Your task to perform on an android device: Open location settings Image 0: 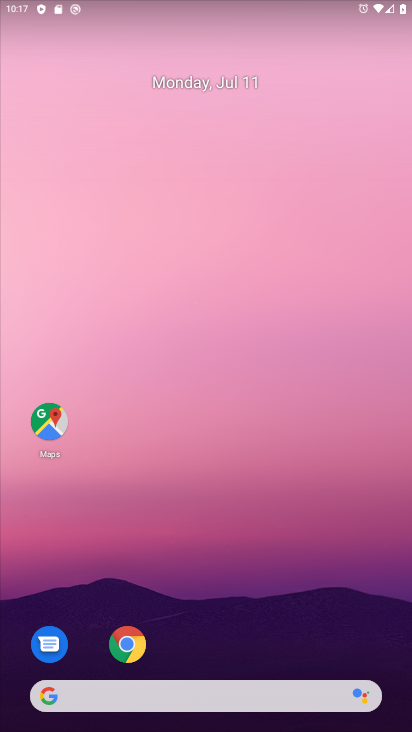
Step 0: press home button
Your task to perform on an android device: Open location settings Image 1: 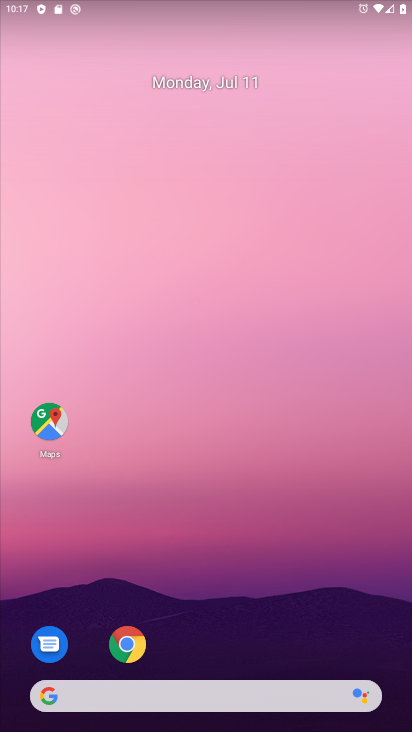
Step 1: drag from (249, 587) to (242, 220)
Your task to perform on an android device: Open location settings Image 2: 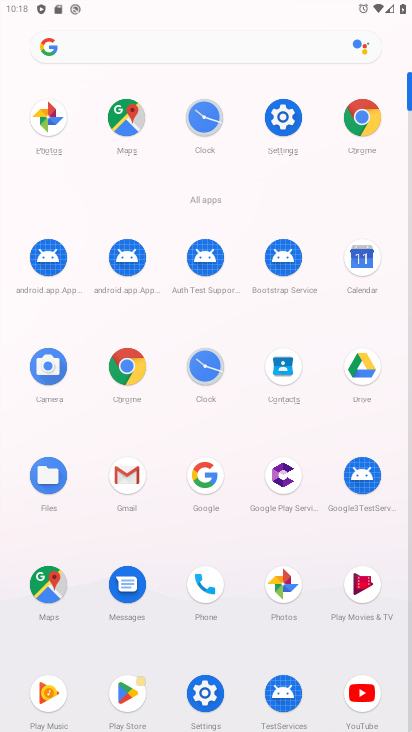
Step 2: click (278, 116)
Your task to perform on an android device: Open location settings Image 3: 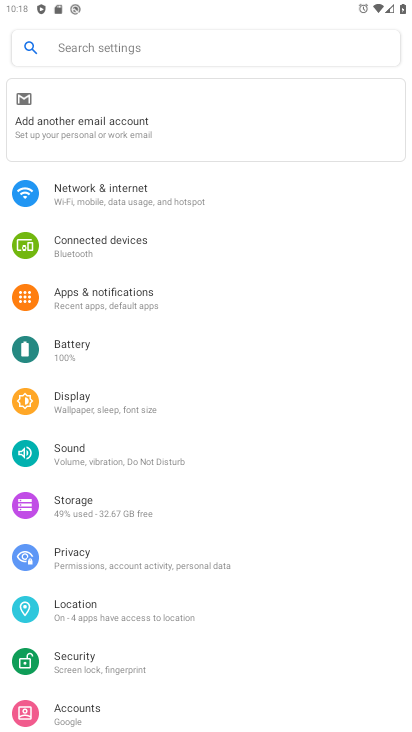
Step 3: click (55, 613)
Your task to perform on an android device: Open location settings Image 4: 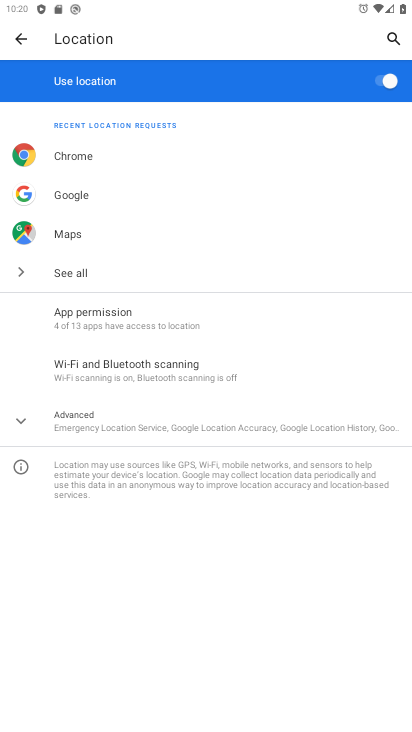
Step 4: task complete